Your task to perform on an android device: Open Yahoo.com Image 0: 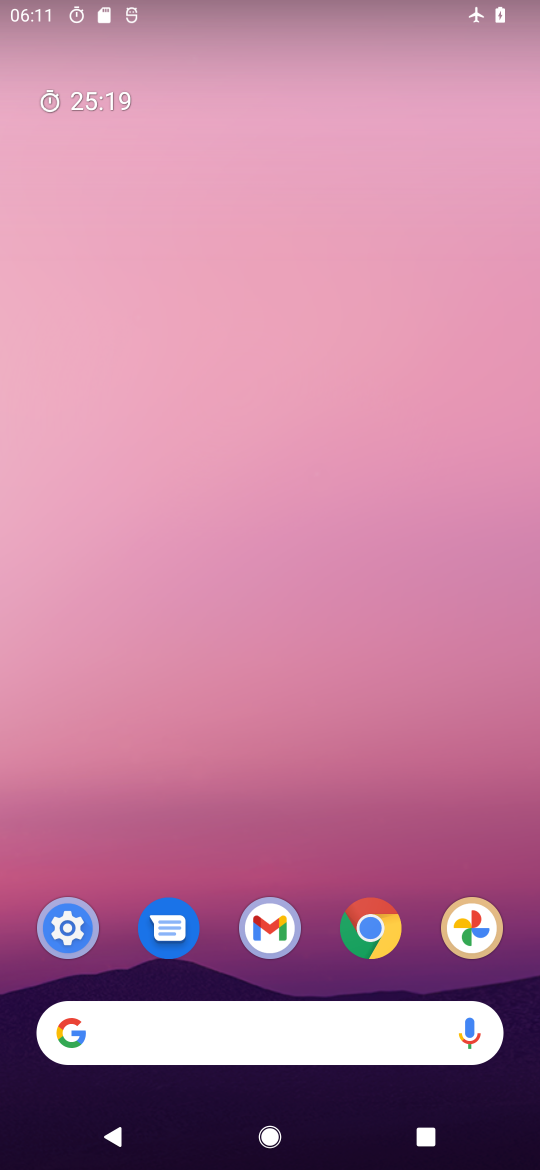
Step 0: click (380, 931)
Your task to perform on an android device: Open Yahoo.com Image 1: 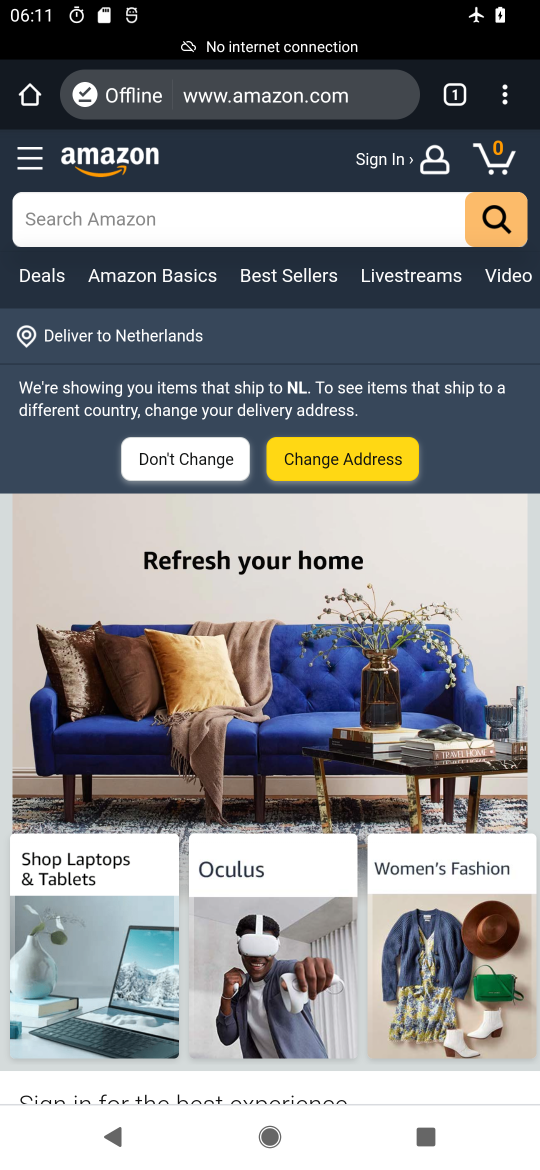
Step 1: click (254, 105)
Your task to perform on an android device: Open Yahoo.com Image 2: 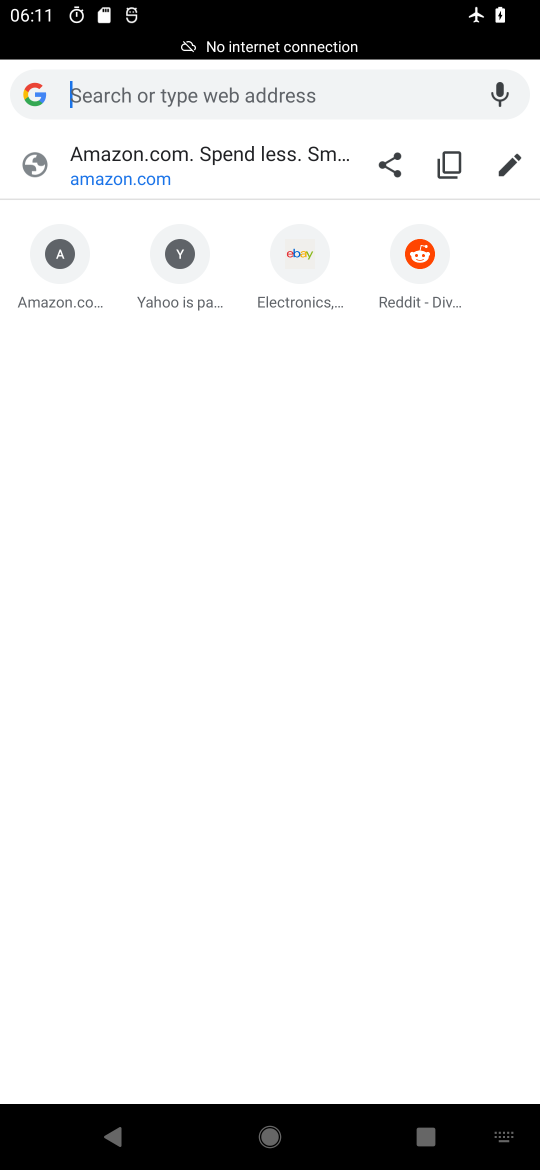
Step 2: type "yahoo.com"
Your task to perform on an android device: Open Yahoo.com Image 3: 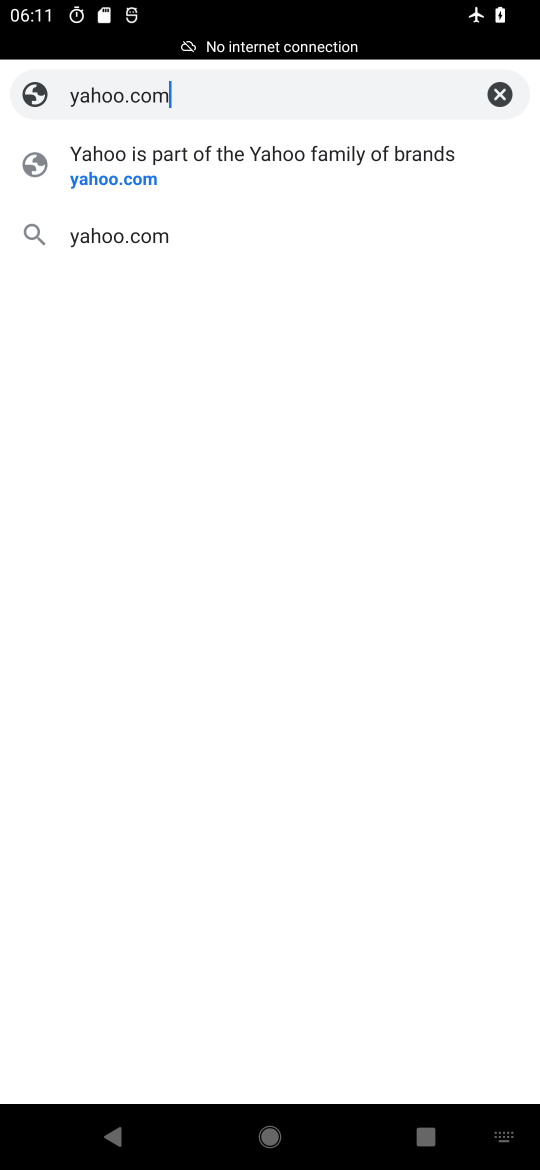
Step 3: click (136, 182)
Your task to perform on an android device: Open Yahoo.com Image 4: 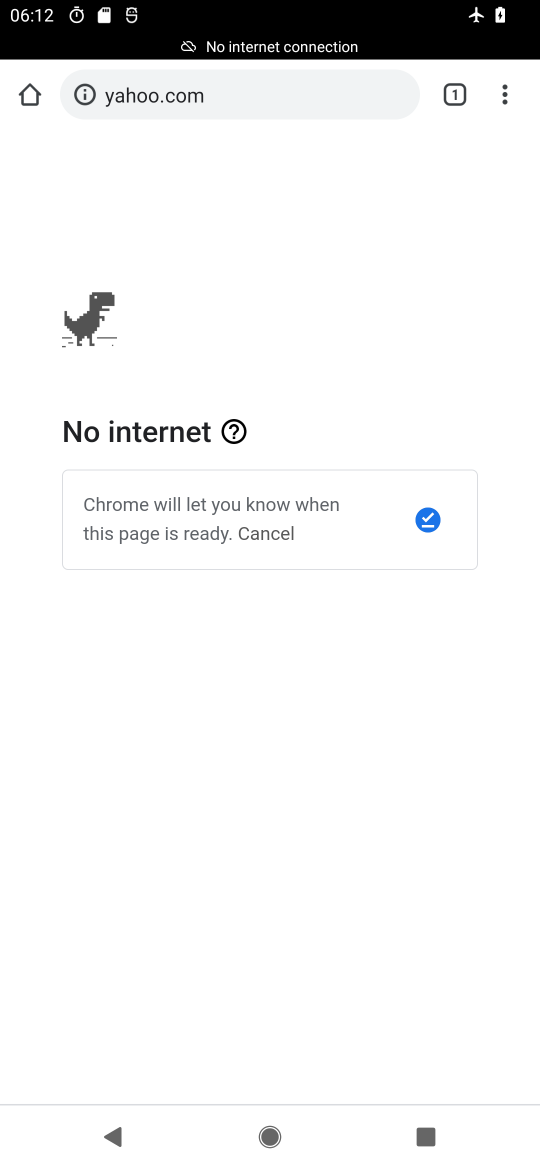
Step 4: task complete